Your task to perform on an android device: set the timer Image 0: 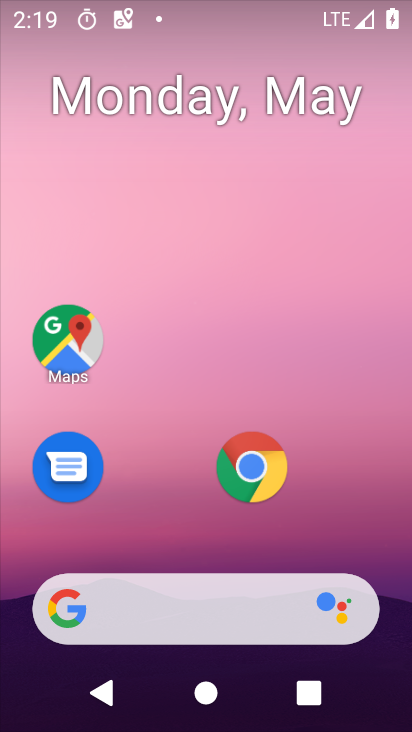
Step 0: click (226, 14)
Your task to perform on an android device: set the timer Image 1: 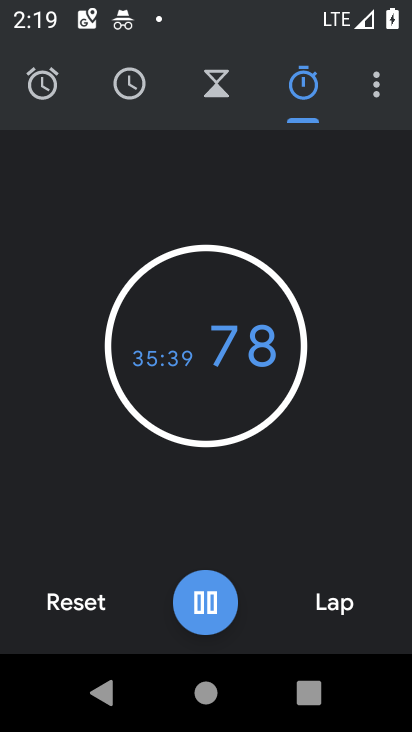
Step 1: click (216, 574)
Your task to perform on an android device: set the timer Image 2: 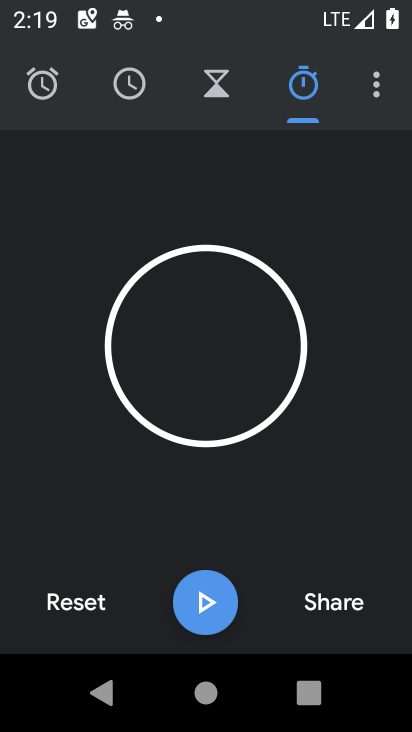
Step 2: click (57, 608)
Your task to perform on an android device: set the timer Image 3: 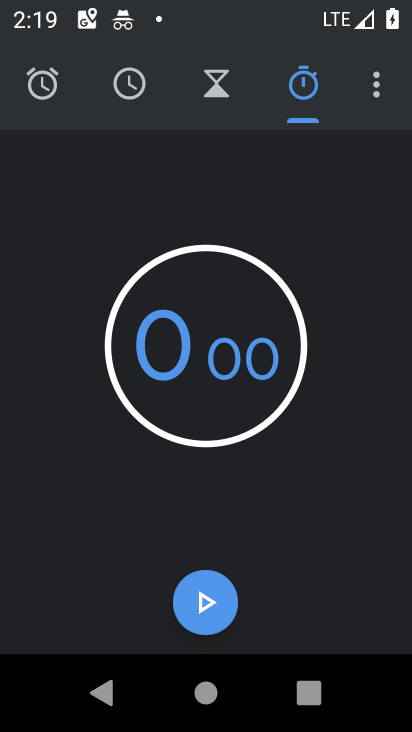
Step 3: click (216, 61)
Your task to perform on an android device: set the timer Image 4: 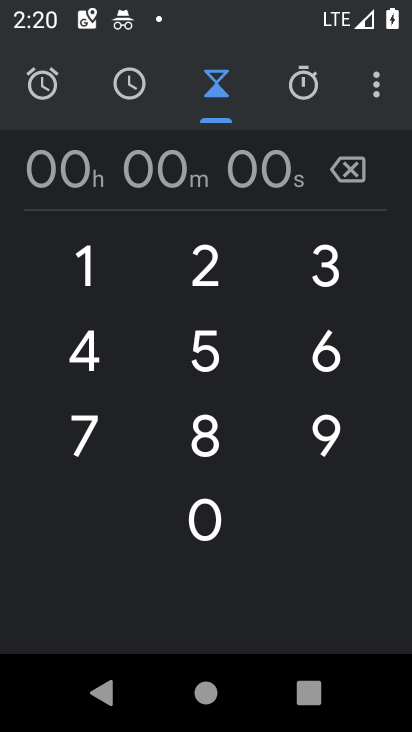
Step 4: click (208, 284)
Your task to perform on an android device: set the timer Image 5: 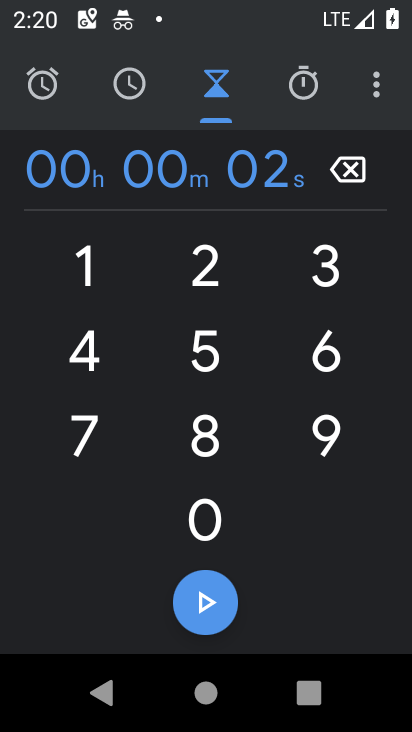
Step 5: click (323, 353)
Your task to perform on an android device: set the timer Image 6: 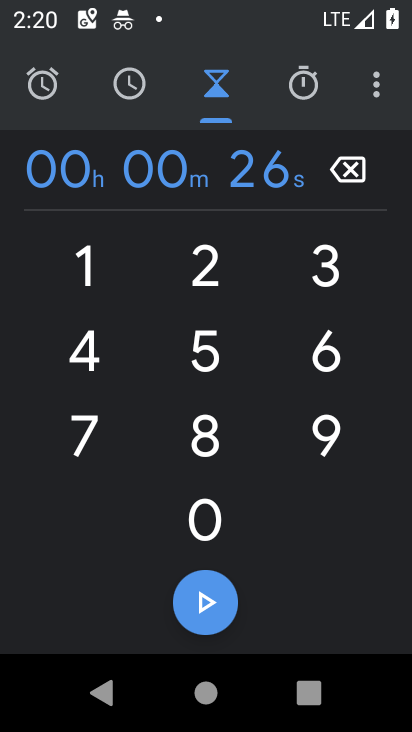
Step 6: click (205, 608)
Your task to perform on an android device: set the timer Image 7: 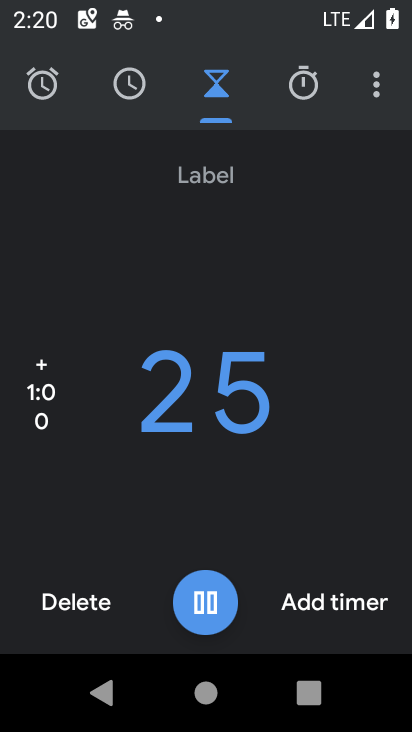
Step 7: task complete